Your task to perform on an android device: toggle javascript in the chrome app Image 0: 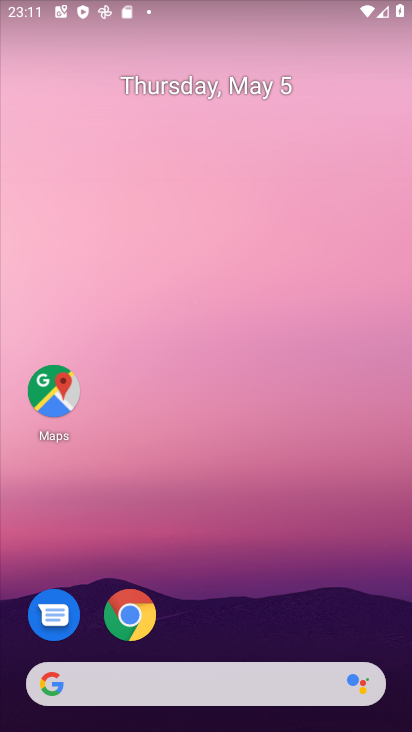
Step 0: click (123, 614)
Your task to perform on an android device: toggle javascript in the chrome app Image 1: 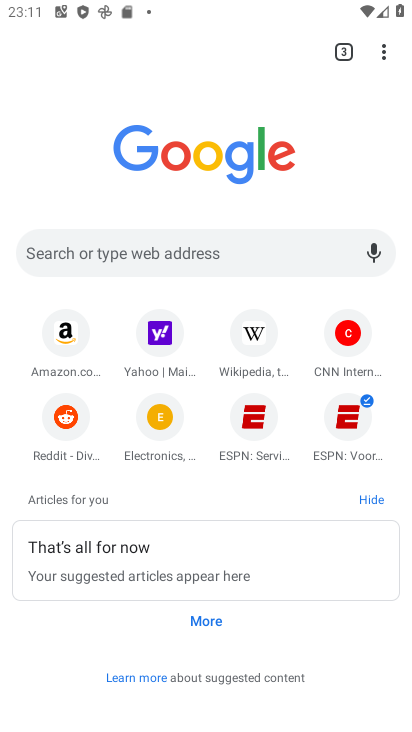
Step 1: click (380, 52)
Your task to perform on an android device: toggle javascript in the chrome app Image 2: 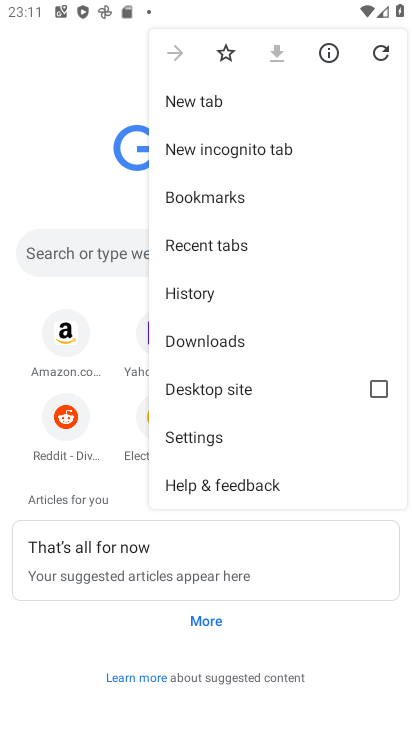
Step 2: click (241, 442)
Your task to perform on an android device: toggle javascript in the chrome app Image 3: 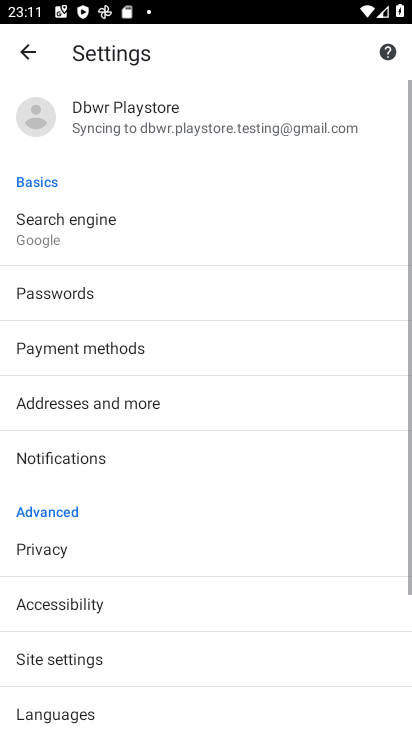
Step 3: drag from (251, 557) to (257, 301)
Your task to perform on an android device: toggle javascript in the chrome app Image 4: 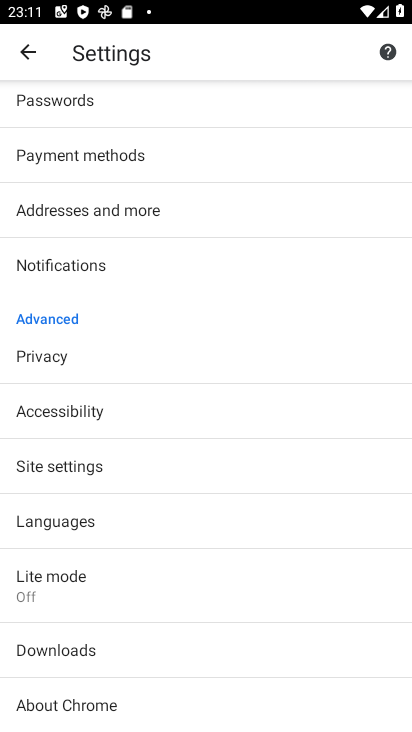
Step 4: drag from (132, 625) to (188, 350)
Your task to perform on an android device: toggle javascript in the chrome app Image 5: 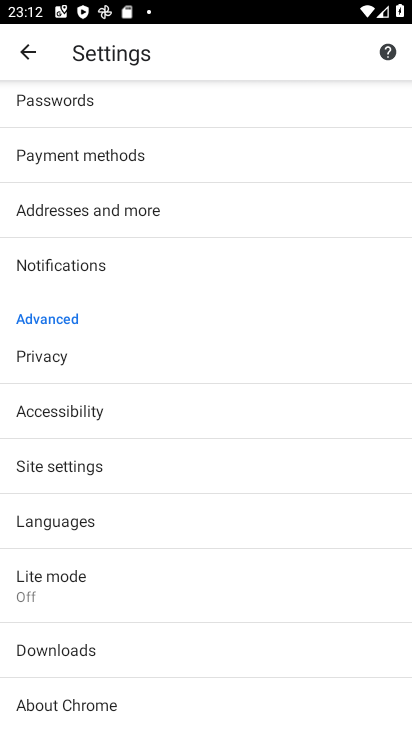
Step 5: click (128, 472)
Your task to perform on an android device: toggle javascript in the chrome app Image 6: 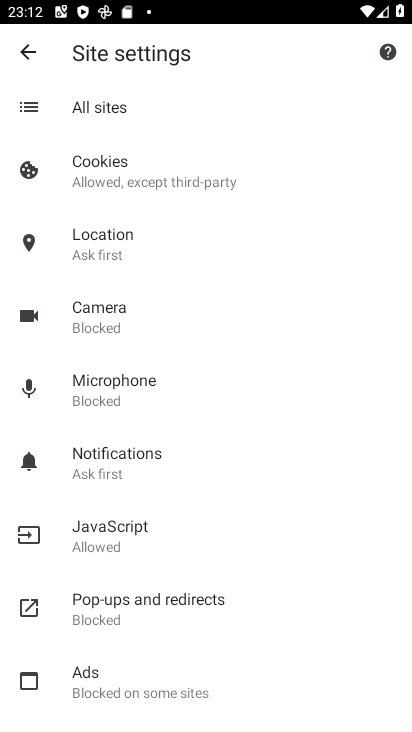
Step 6: click (121, 534)
Your task to perform on an android device: toggle javascript in the chrome app Image 7: 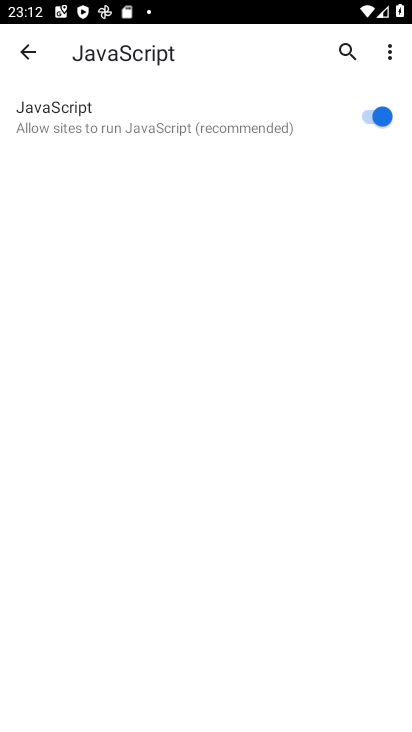
Step 7: click (378, 116)
Your task to perform on an android device: toggle javascript in the chrome app Image 8: 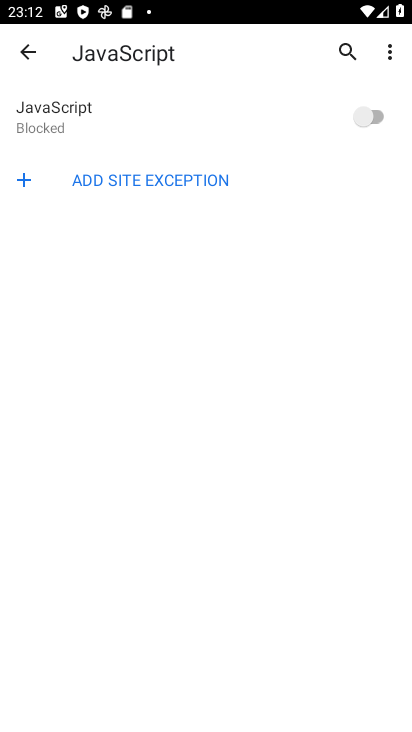
Step 8: task complete